Your task to perform on an android device: Open calendar and show me the second week of next month Image 0: 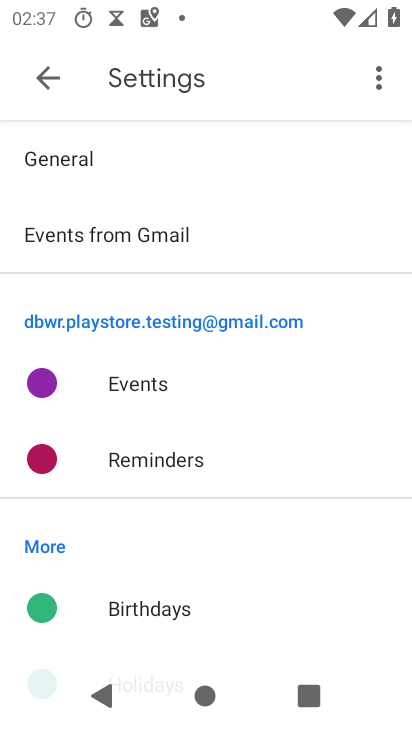
Step 0: press home button
Your task to perform on an android device: Open calendar and show me the second week of next month Image 1: 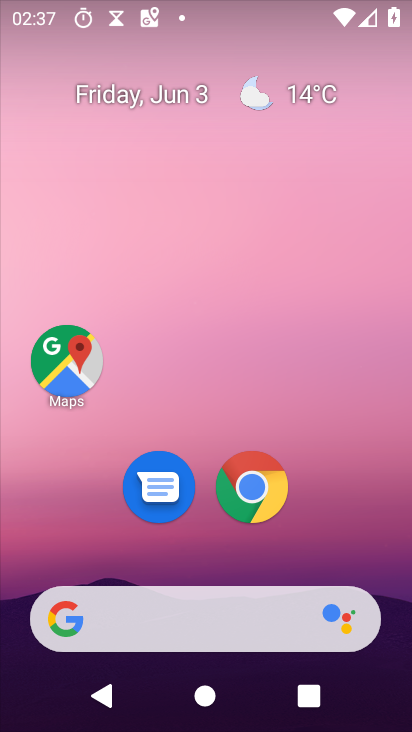
Step 1: click (158, 91)
Your task to perform on an android device: Open calendar and show me the second week of next month Image 2: 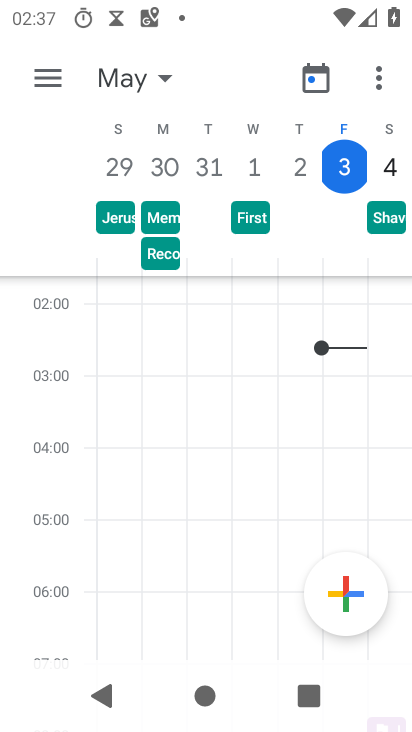
Step 2: click (161, 79)
Your task to perform on an android device: Open calendar and show me the second week of next month Image 3: 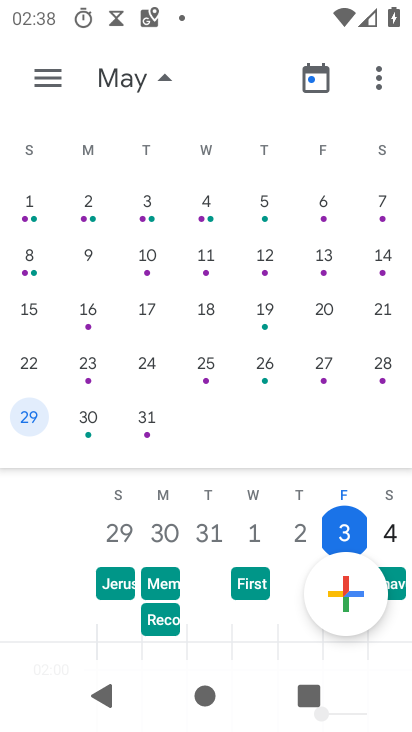
Step 3: drag from (348, 227) to (24, 336)
Your task to perform on an android device: Open calendar and show me the second week of next month Image 4: 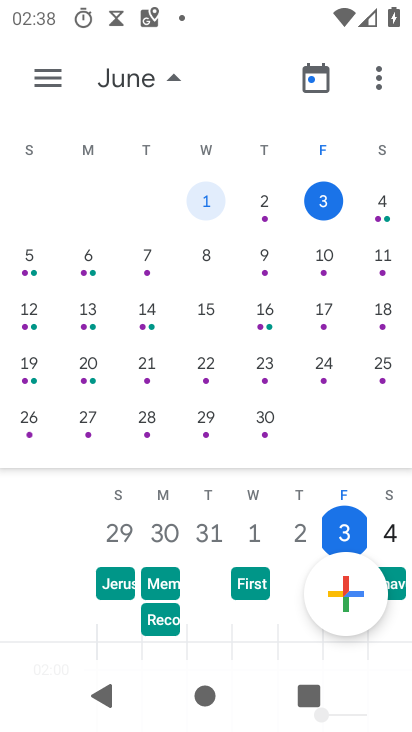
Step 4: drag from (346, 285) to (24, 377)
Your task to perform on an android device: Open calendar and show me the second week of next month Image 5: 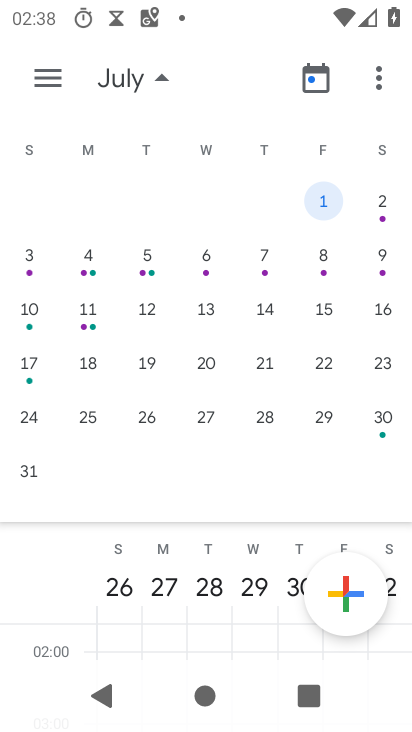
Step 5: click (26, 263)
Your task to perform on an android device: Open calendar and show me the second week of next month Image 6: 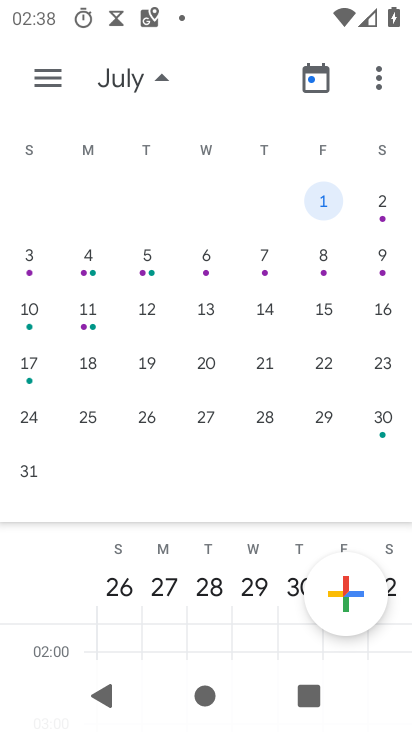
Step 6: click (41, 249)
Your task to perform on an android device: Open calendar and show me the second week of next month Image 7: 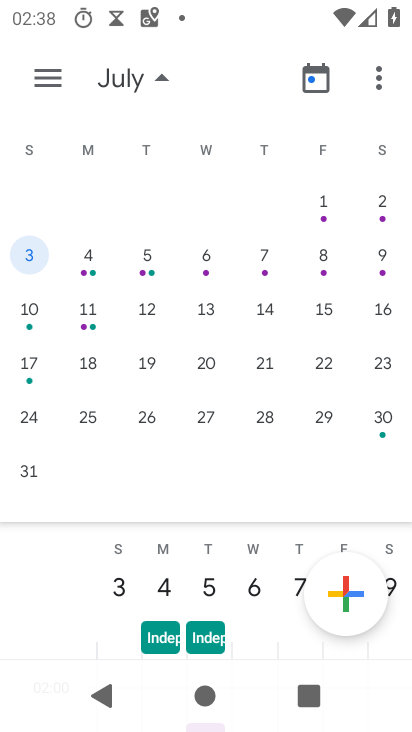
Step 7: task complete